Your task to perform on an android device: Search for a 100 ft extension cord Image 0: 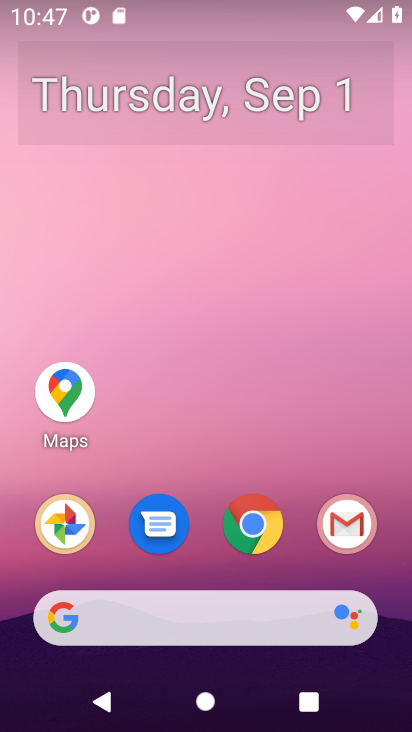
Step 0: press home button
Your task to perform on an android device: Search for a 100 ft extension cord Image 1: 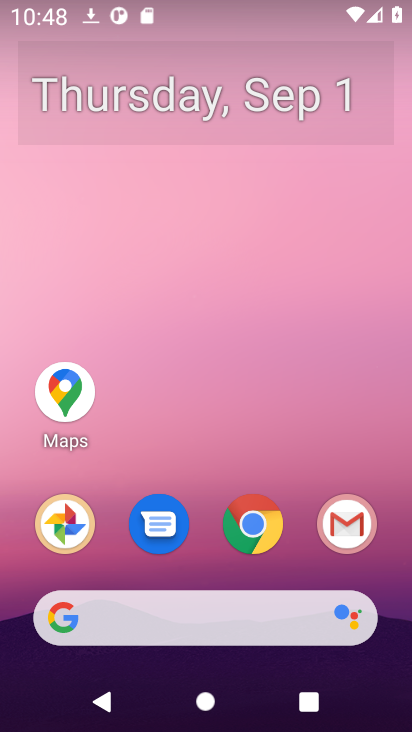
Step 1: drag from (382, 397) to (385, 136)
Your task to perform on an android device: Search for a 100 ft extension cord Image 2: 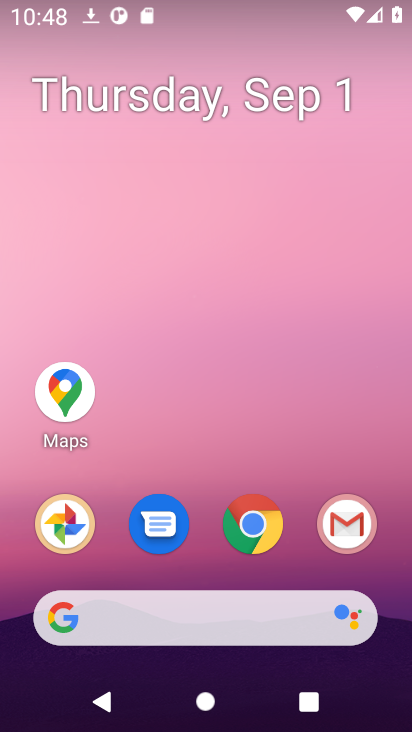
Step 2: click (228, 626)
Your task to perform on an android device: Search for a 100 ft extension cord Image 3: 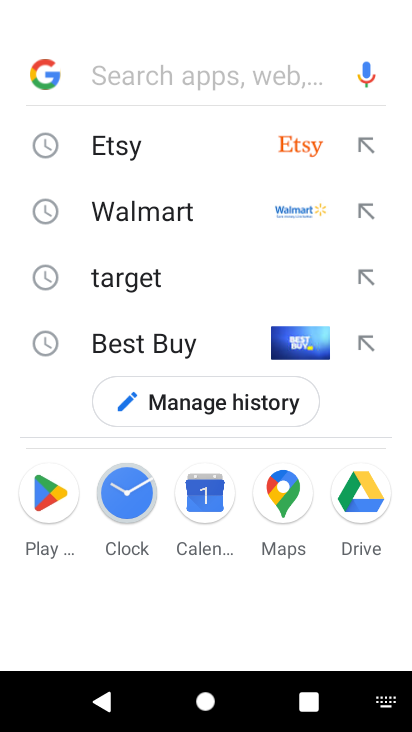
Step 3: press enter
Your task to perform on an android device: Search for a 100 ft extension cord Image 4: 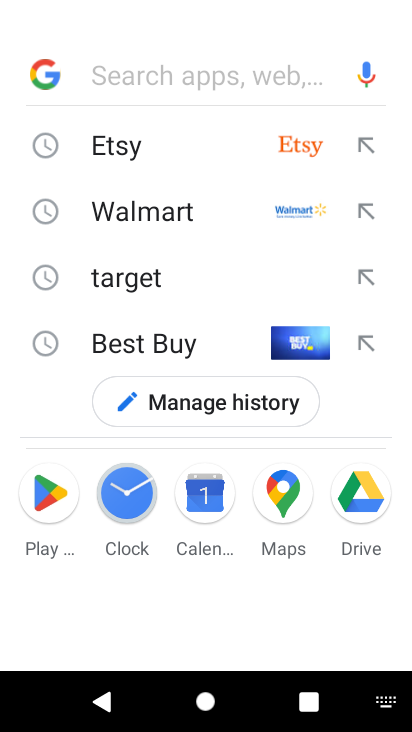
Step 4: type "100 ft extension cord"
Your task to perform on an android device: Search for a 100 ft extension cord Image 5: 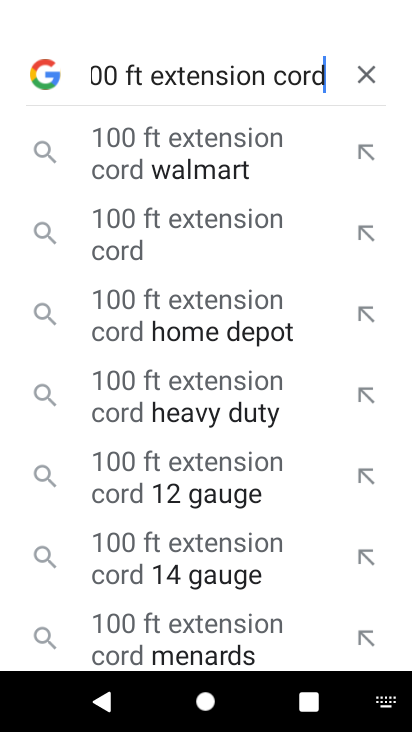
Step 5: click (181, 235)
Your task to perform on an android device: Search for a 100 ft extension cord Image 6: 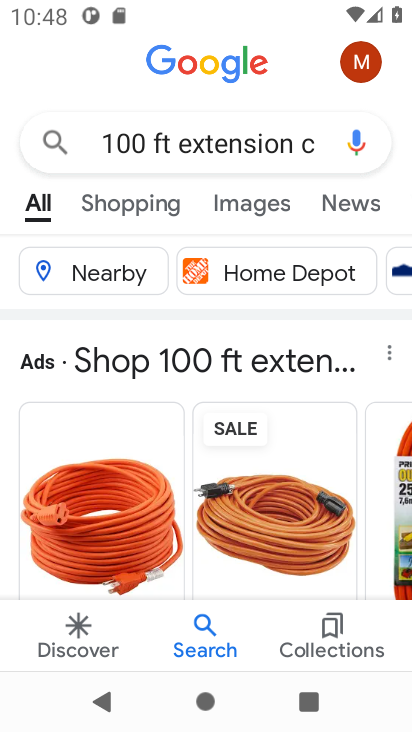
Step 6: task complete